Your task to perform on an android device: What's on my calendar today? Image 0: 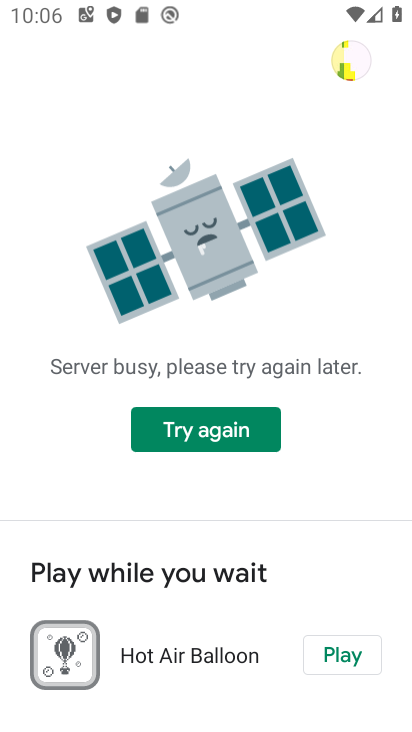
Step 0: press home button
Your task to perform on an android device: What's on my calendar today? Image 1: 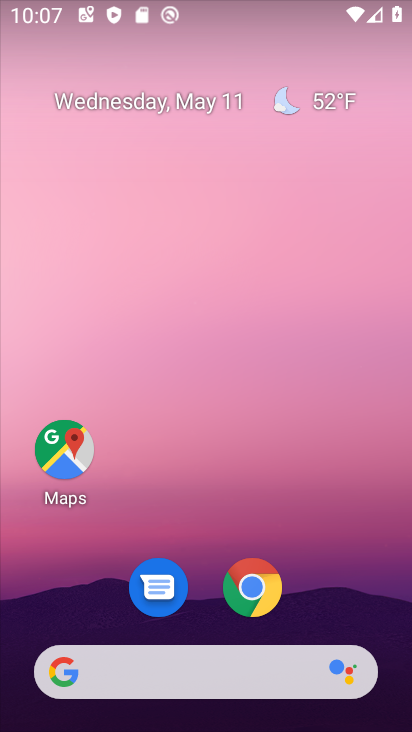
Step 1: drag from (209, 708) to (207, 348)
Your task to perform on an android device: What's on my calendar today? Image 2: 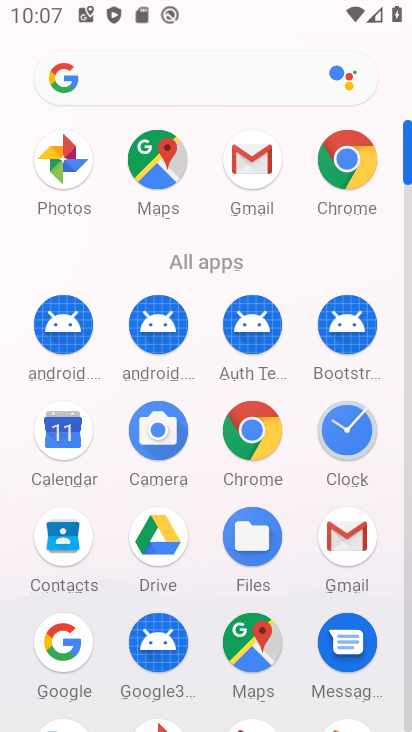
Step 2: click (75, 443)
Your task to perform on an android device: What's on my calendar today? Image 3: 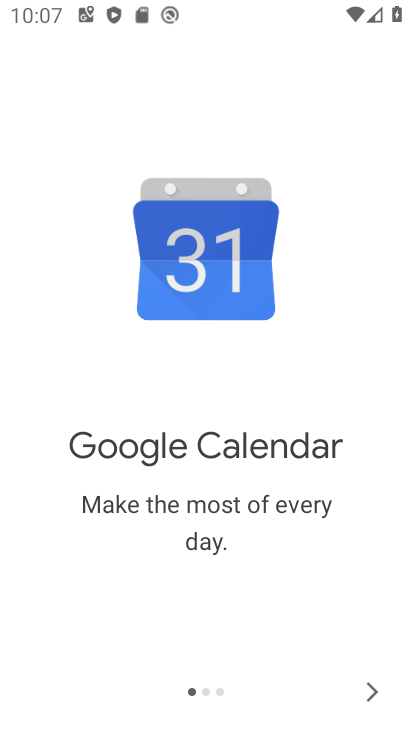
Step 3: click (366, 705)
Your task to perform on an android device: What's on my calendar today? Image 4: 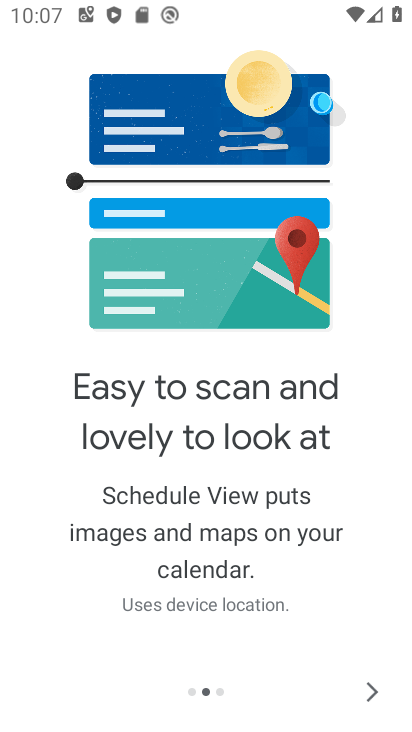
Step 4: click (366, 689)
Your task to perform on an android device: What's on my calendar today? Image 5: 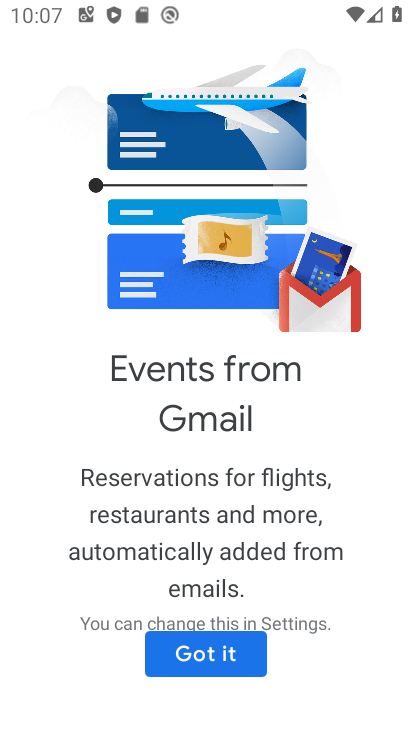
Step 5: click (213, 659)
Your task to perform on an android device: What's on my calendar today? Image 6: 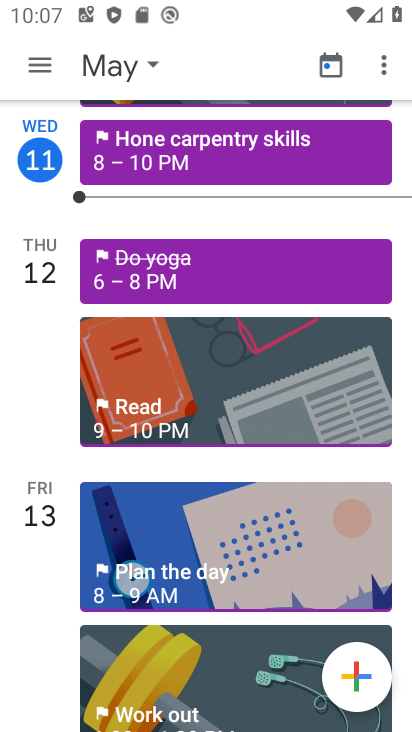
Step 6: task complete